Your task to perform on an android device: When is my next meeting? Image 0: 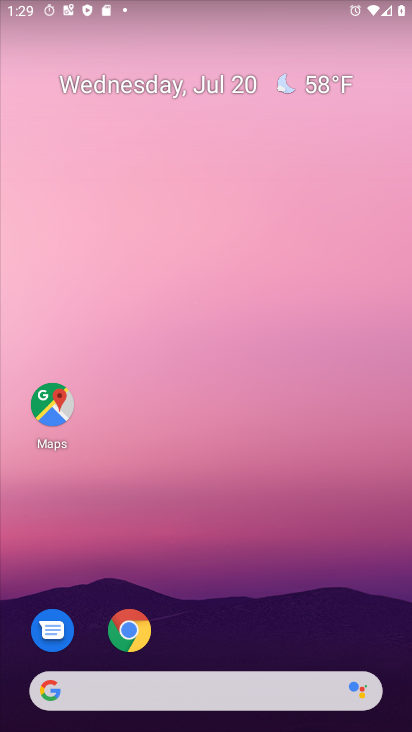
Step 0: drag from (165, 697) to (300, 48)
Your task to perform on an android device: When is my next meeting? Image 1: 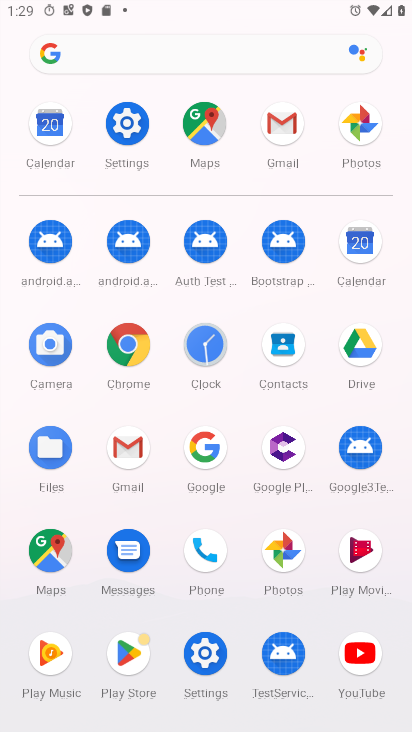
Step 1: click (369, 241)
Your task to perform on an android device: When is my next meeting? Image 2: 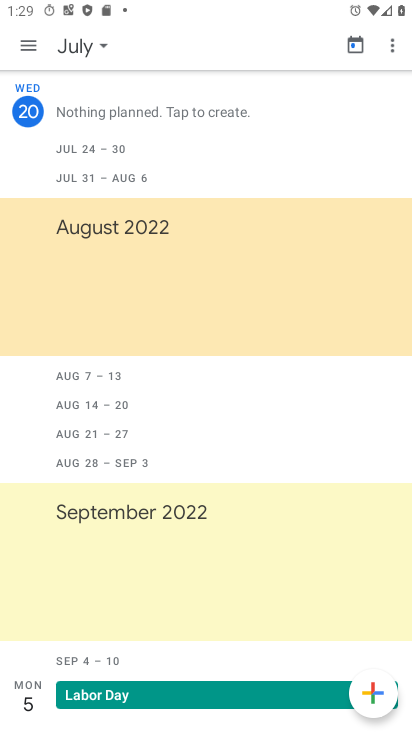
Step 2: task complete